Your task to perform on an android device: Do I have any events today? Image 0: 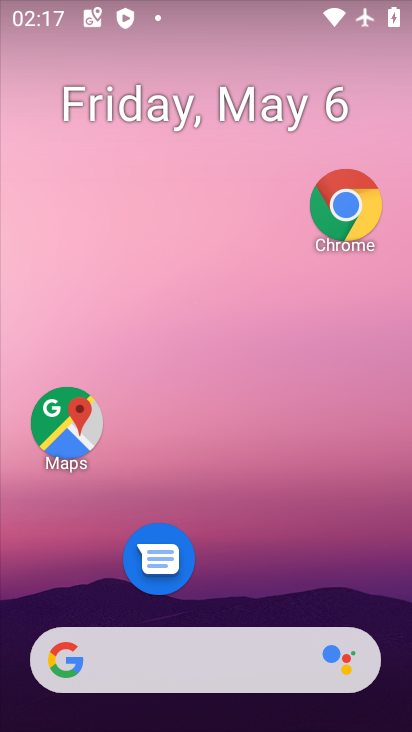
Step 0: drag from (207, 654) to (331, 156)
Your task to perform on an android device: Do I have any events today? Image 1: 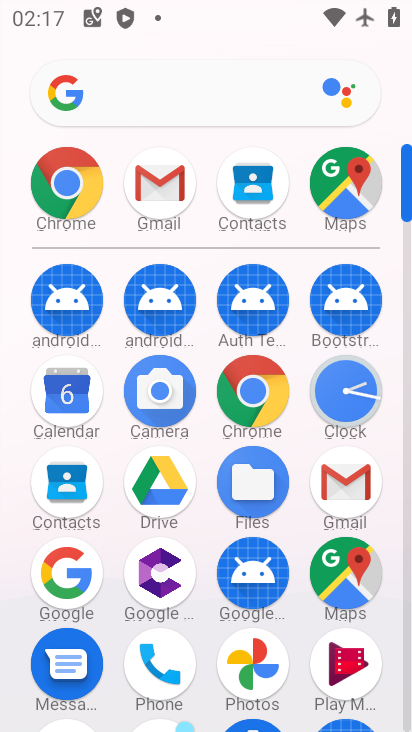
Step 1: click (68, 406)
Your task to perform on an android device: Do I have any events today? Image 2: 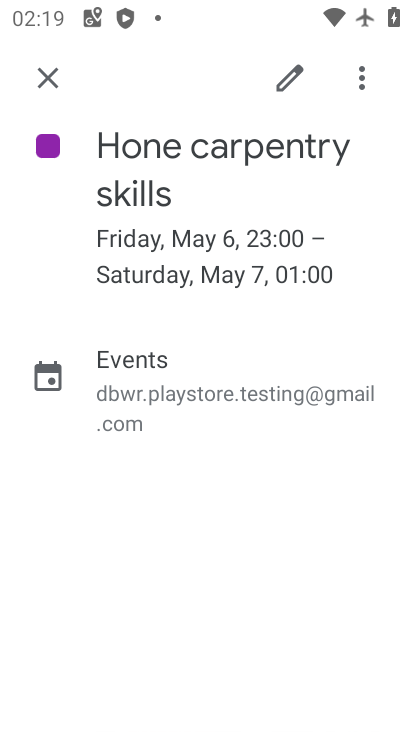
Step 2: task complete